Your task to perform on an android device: manage bookmarks in the chrome app Image 0: 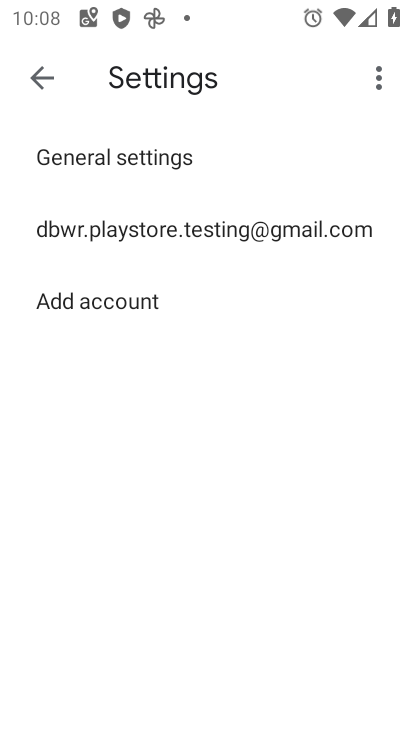
Step 0: press home button
Your task to perform on an android device: manage bookmarks in the chrome app Image 1: 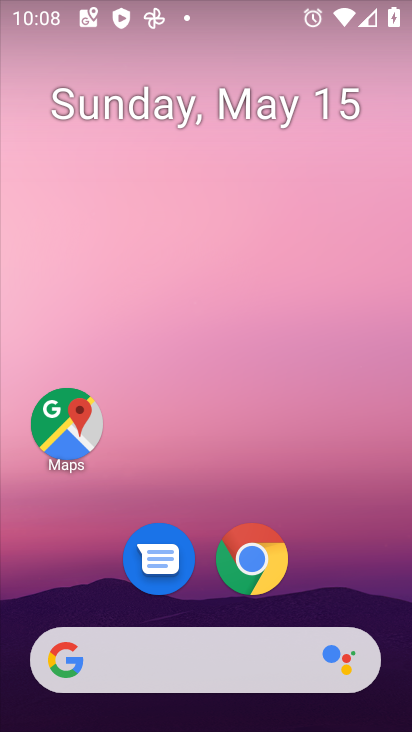
Step 1: click (295, 565)
Your task to perform on an android device: manage bookmarks in the chrome app Image 2: 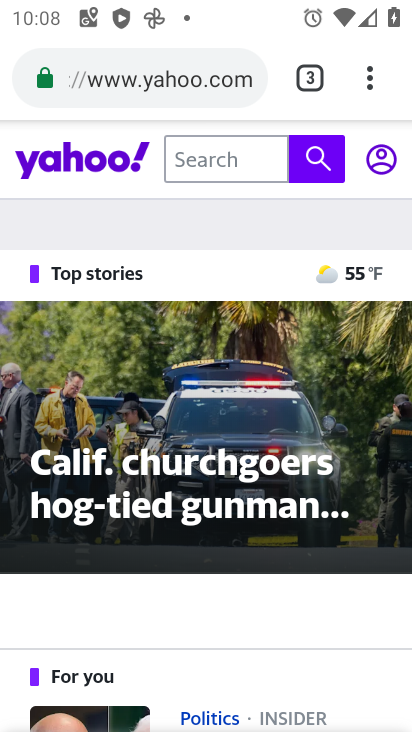
Step 2: click (366, 98)
Your task to perform on an android device: manage bookmarks in the chrome app Image 3: 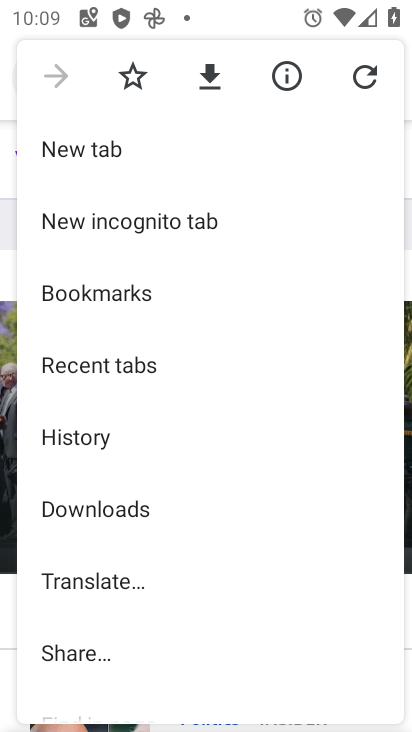
Step 3: click (210, 283)
Your task to perform on an android device: manage bookmarks in the chrome app Image 4: 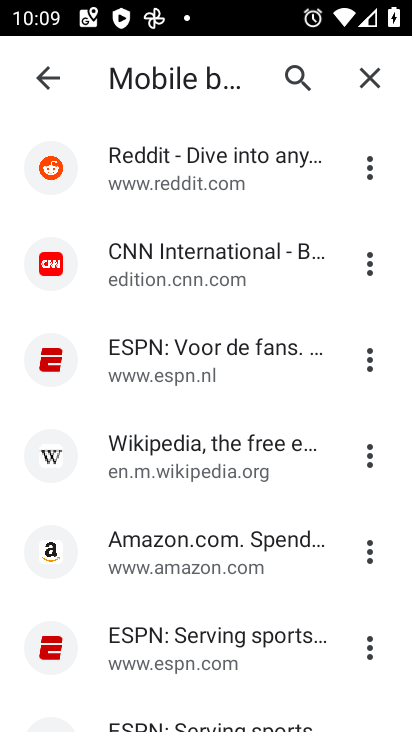
Step 4: drag from (181, 593) to (237, 389)
Your task to perform on an android device: manage bookmarks in the chrome app Image 5: 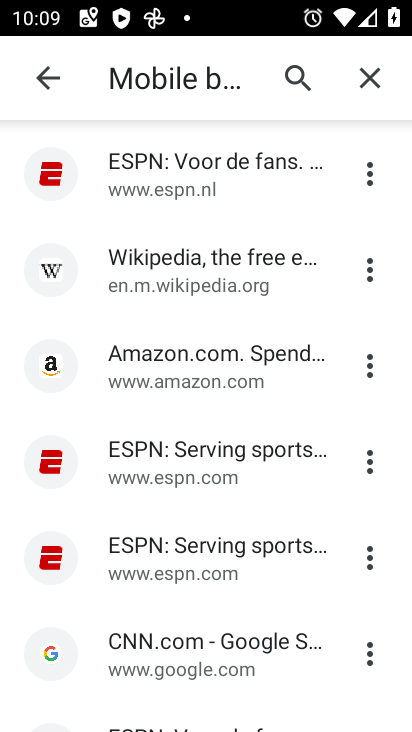
Step 5: click (381, 635)
Your task to perform on an android device: manage bookmarks in the chrome app Image 6: 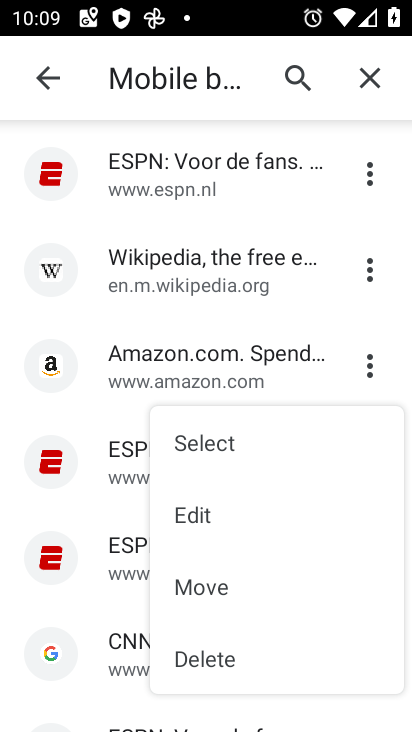
Step 6: click (226, 651)
Your task to perform on an android device: manage bookmarks in the chrome app Image 7: 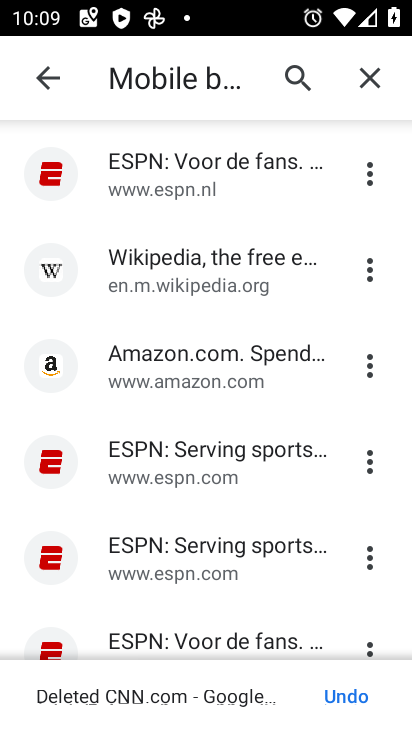
Step 7: task complete